Your task to perform on an android device: Open Google Chrome Image 0: 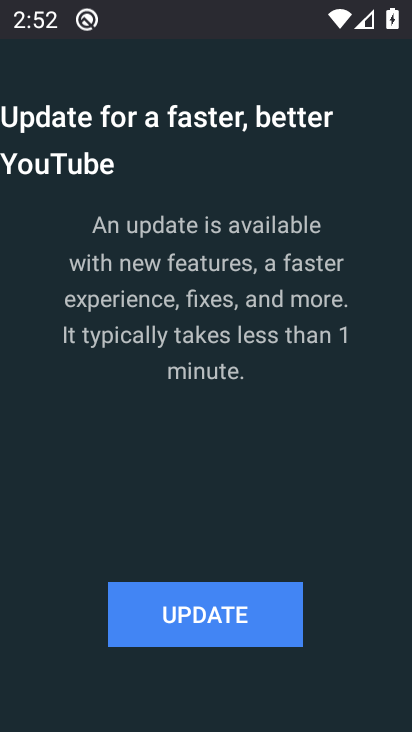
Step 0: press home button
Your task to perform on an android device: Open Google Chrome Image 1: 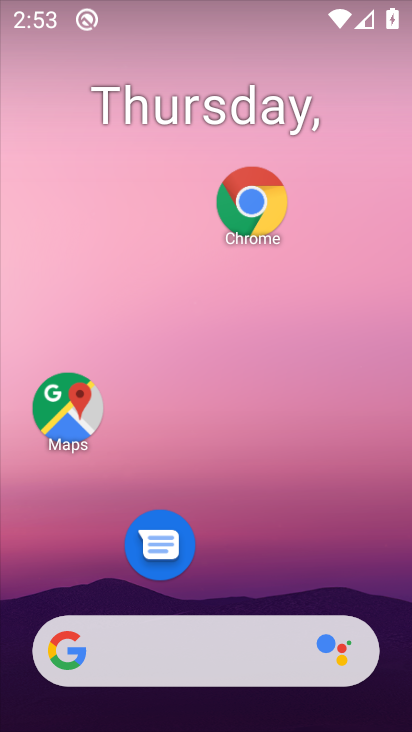
Step 1: drag from (194, 621) to (283, 165)
Your task to perform on an android device: Open Google Chrome Image 2: 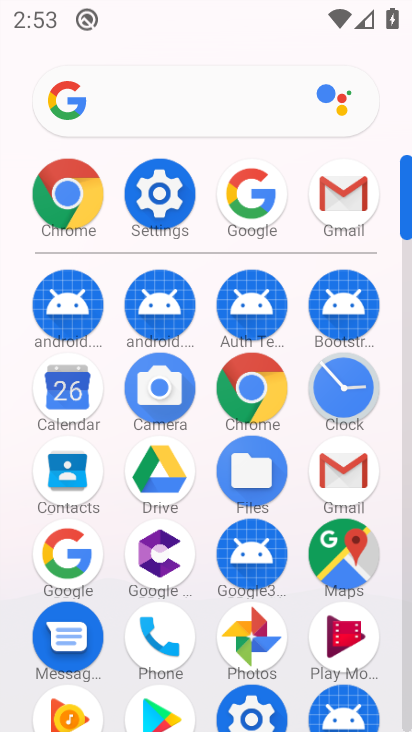
Step 2: click (71, 188)
Your task to perform on an android device: Open Google Chrome Image 3: 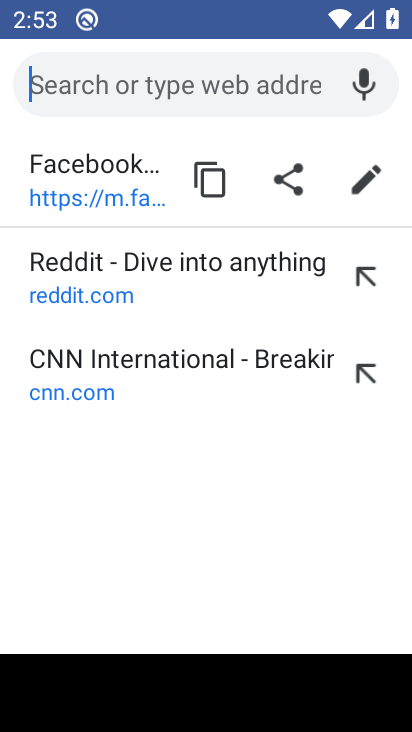
Step 3: task complete